Your task to perform on an android device: Open Android settings Image 0: 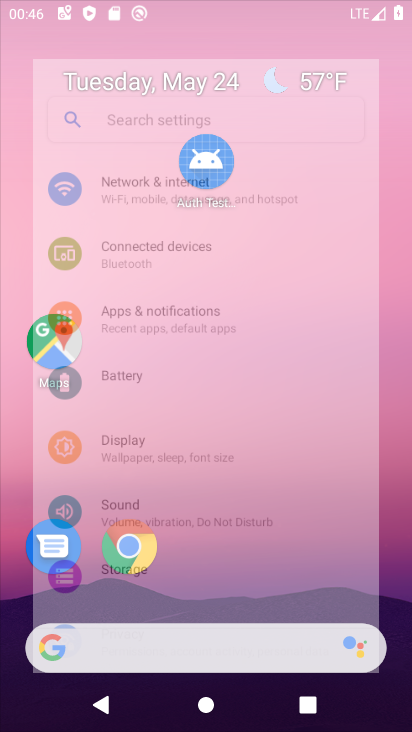
Step 0: click (403, 407)
Your task to perform on an android device: Open Android settings Image 1: 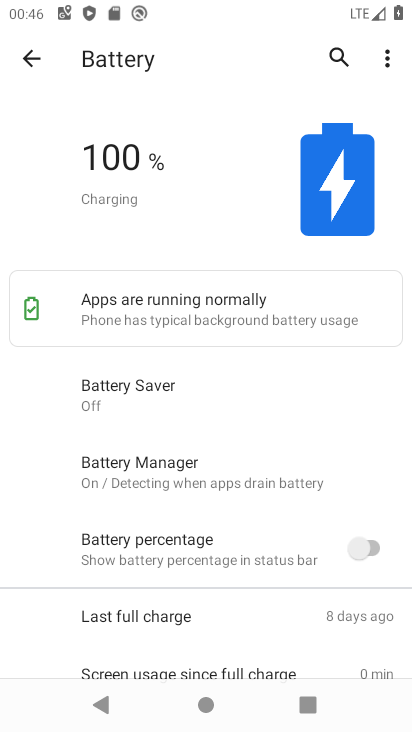
Step 1: drag from (202, 514) to (366, 72)
Your task to perform on an android device: Open Android settings Image 2: 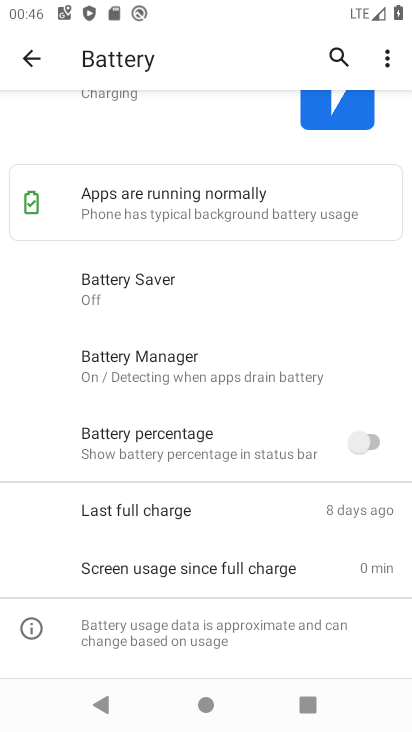
Step 2: drag from (262, 600) to (331, 358)
Your task to perform on an android device: Open Android settings Image 3: 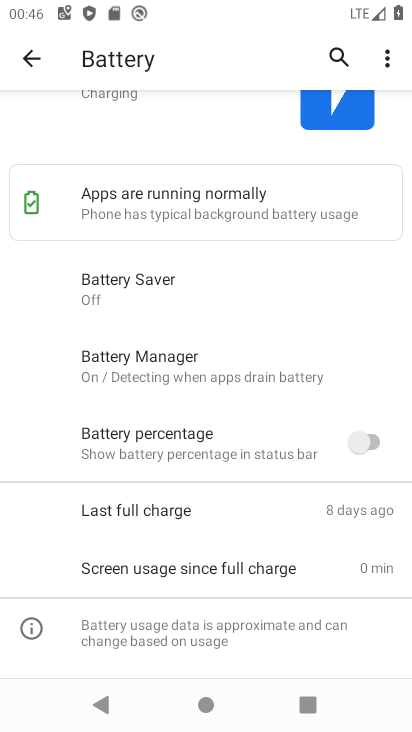
Step 3: drag from (204, 532) to (282, 166)
Your task to perform on an android device: Open Android settings Image 4: 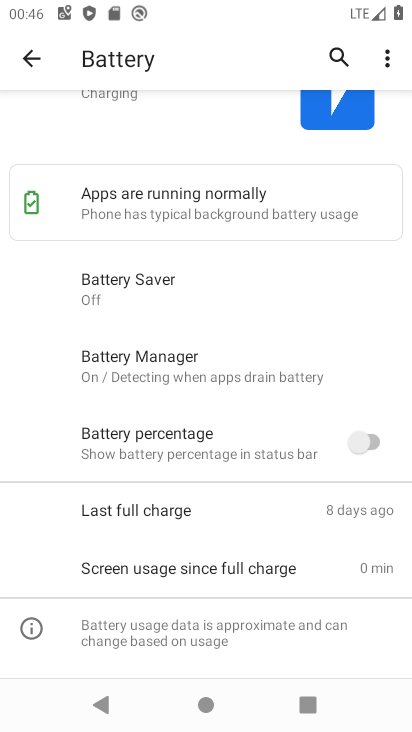
Step 4: drag from (229, 540) to (288, 480)
Your task to perform on an android device: Open Android settings Image 5: 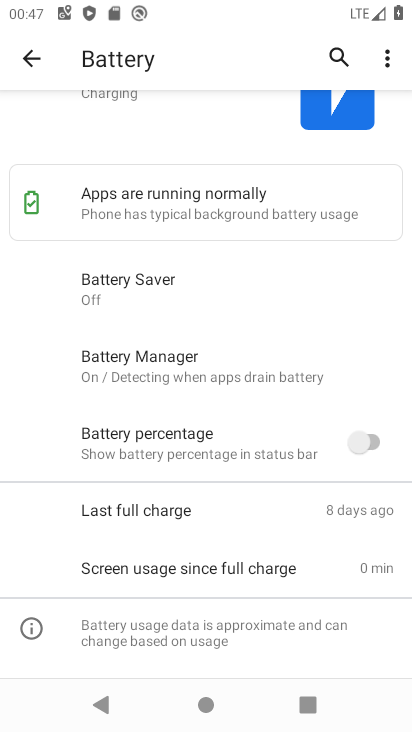
Step 5: drag from (191, 578) to (261, 288)
Your task to perform on an android device: Open Android settings Image 6: 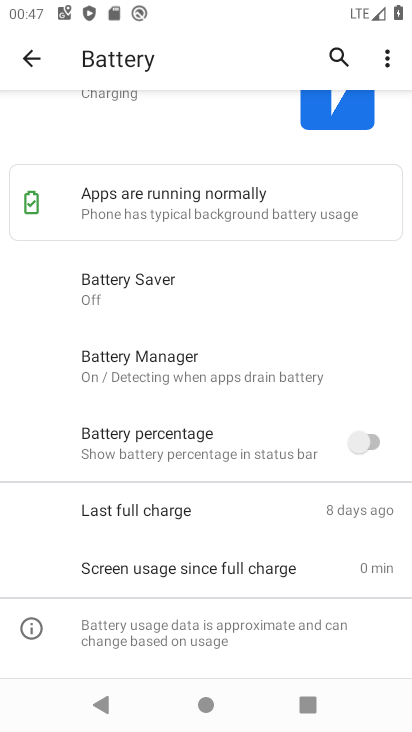
Step 6: drag from (210, 652) to (270, 310)
Your task to perform on an android device: Open Android settings Image 7: 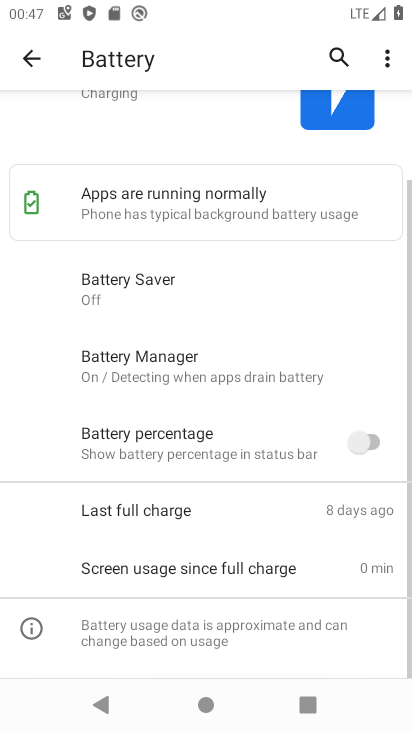
Step 7: drag from (281, 258) to (244, 731)
Your task to perform on an android device: Open Android settings Image 8: 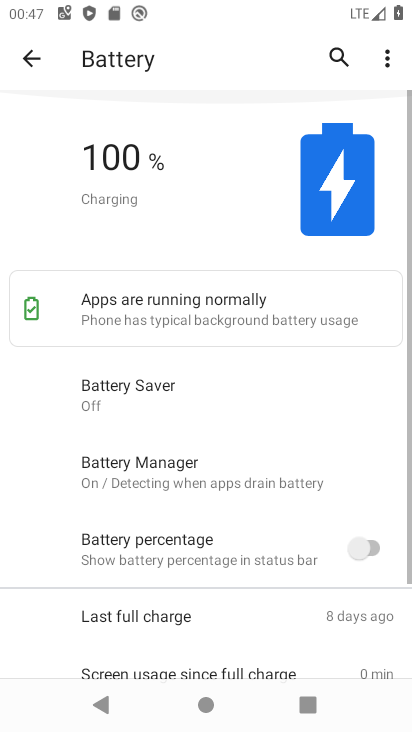
Step 8: drag from (264, 633) to (333, 222)
Your task to perform on an android device: Open Android settings Image 9: 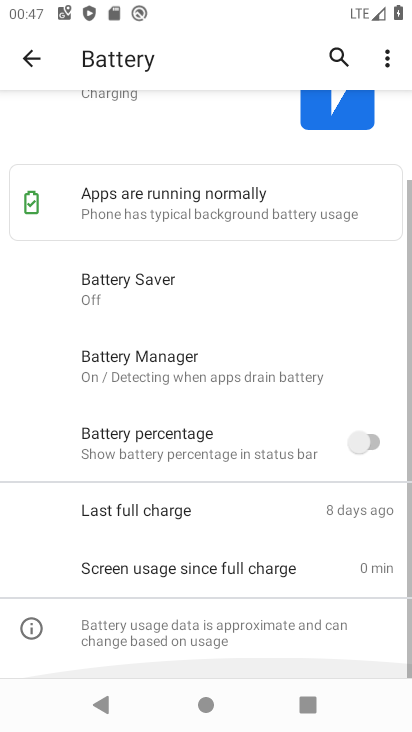
Step 9: drag from (264, 215) to (309, 657)
Your task to perform on an android device: Open Android settings Image 10: 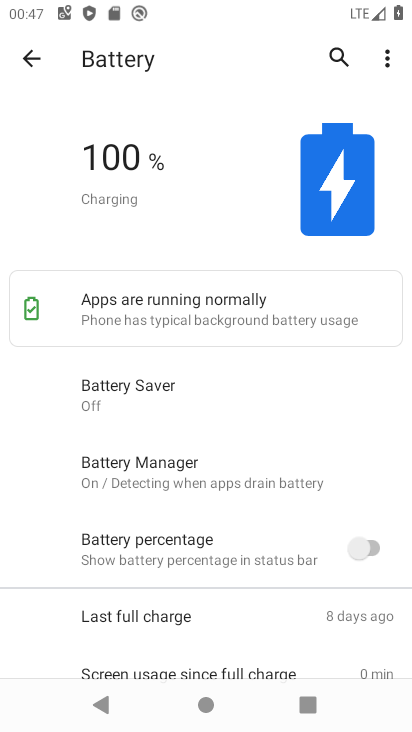
Step 10: drag from (223, 580) to (273, 189)
Your task to perform on an android device: Open Android settings Image 11: 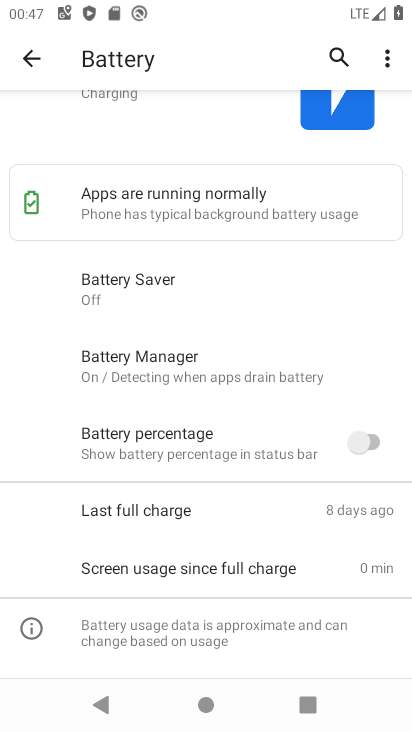
Step 11: drag from (105, 186) to (310, 719)
Your task to perform on an android device: Open Android settings Image 12: 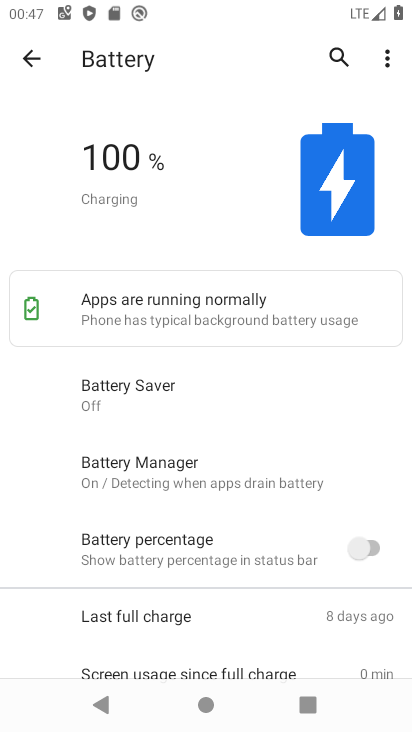
Step 12: click (389, 50)
Your task to perform on an android device: Open Android settings Image 13: 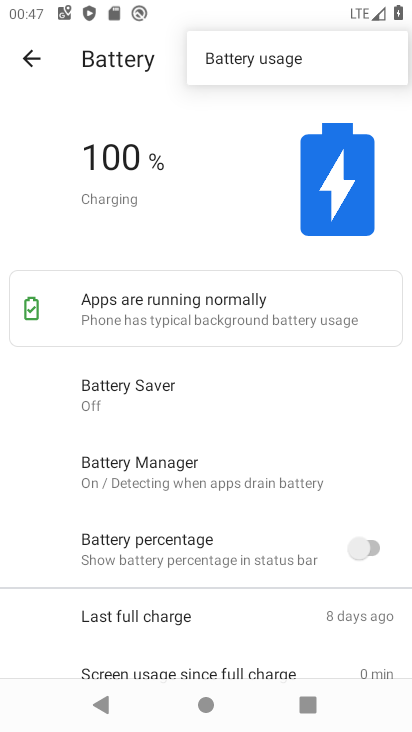
Step 13: click (223, 235)
Your task to perform on an android device: Open Android settings Image 14: 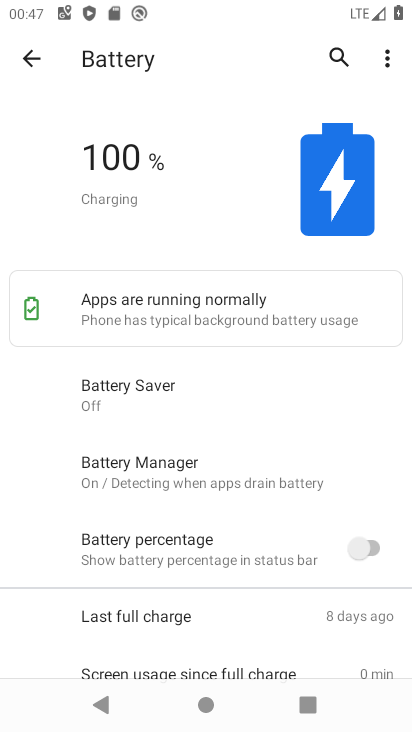
Step 14: click (26, 60)
Your task to perform on an android device: Open Android settings Image 15: 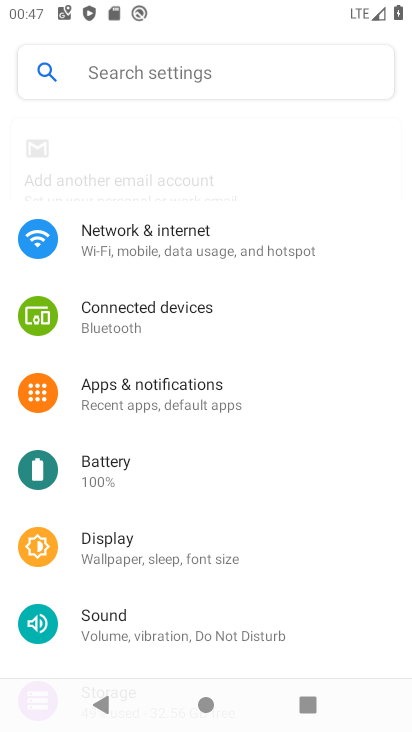
Step 15: drag from (178, 412) to (333, 9)
Your task to perform on an android device: Open Android settings Image 16: 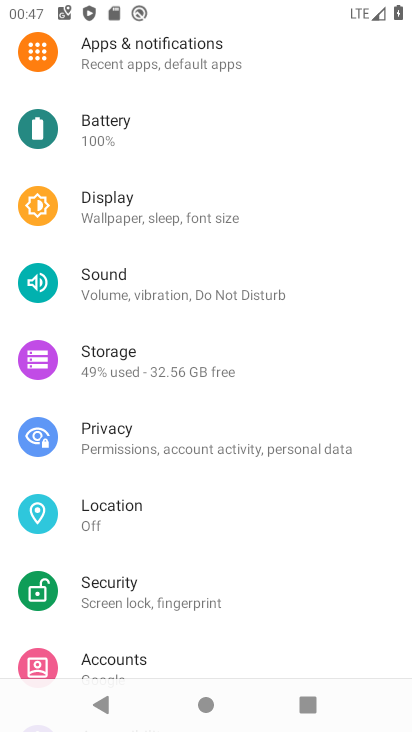
Step 16: drag from (184, 547) to (236, 92)
Your task to perform on an android device: Open Android settings Image 17: 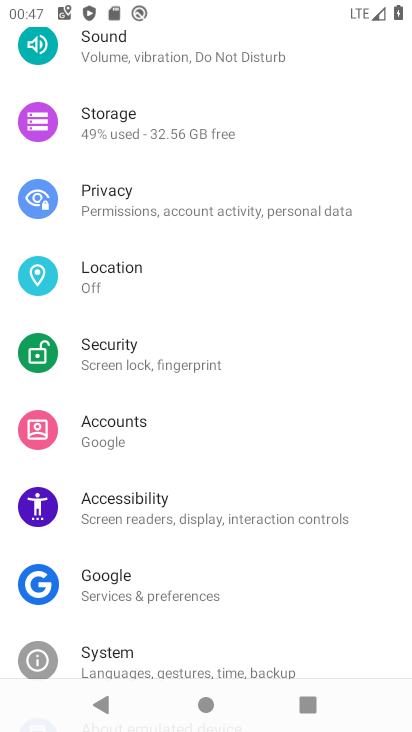
Step 17: drag from (154, 637) to (310, 155)
Your task to perform on an android device: Open Android settings Image 18: 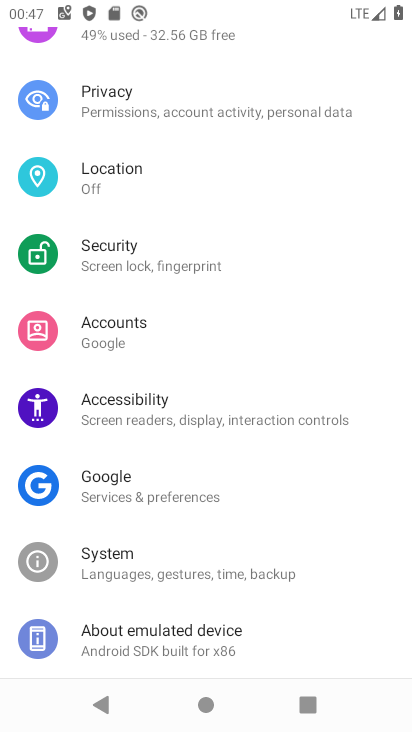
Step 18: click (162, 660)
Your task to perform on an android device: Open Android settings Image 19: 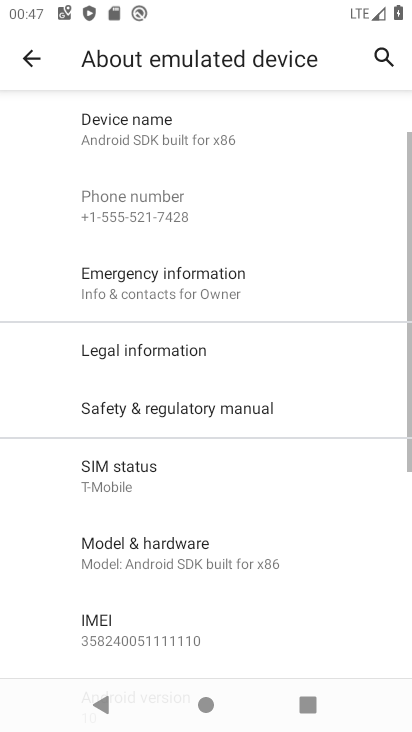
Step 19: drag from (171, 647) to (231, 170)
Your task to perform on an android device: Open Android settings Image 20: 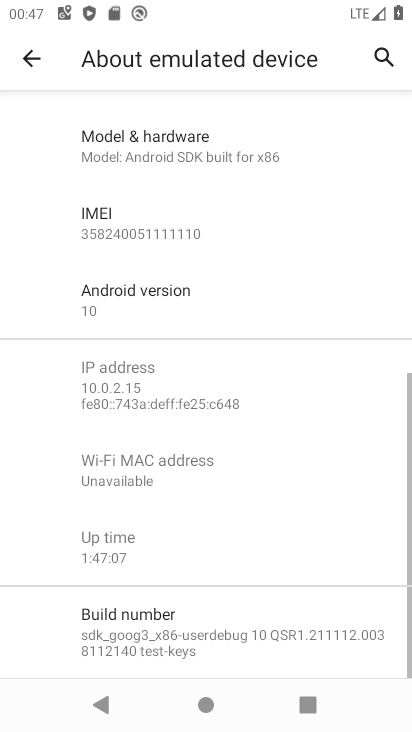
Step 20: click (185, 295)
Your task to perform on an android device: Open Android settings Image 21: 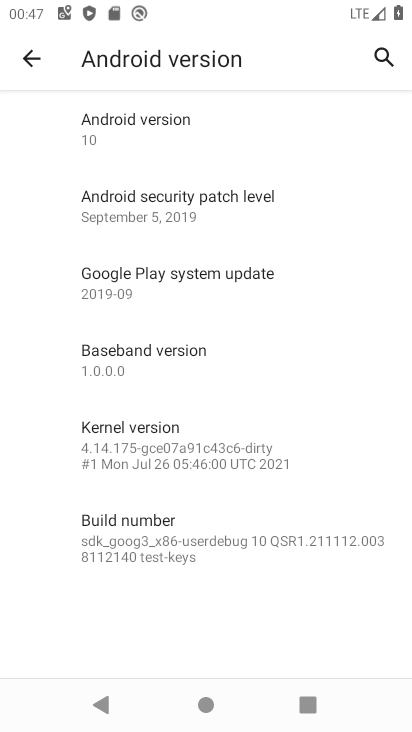
Step 21: task complete